Your task to perform on an android device: delete the emails in spam in the gmail app Image 0: 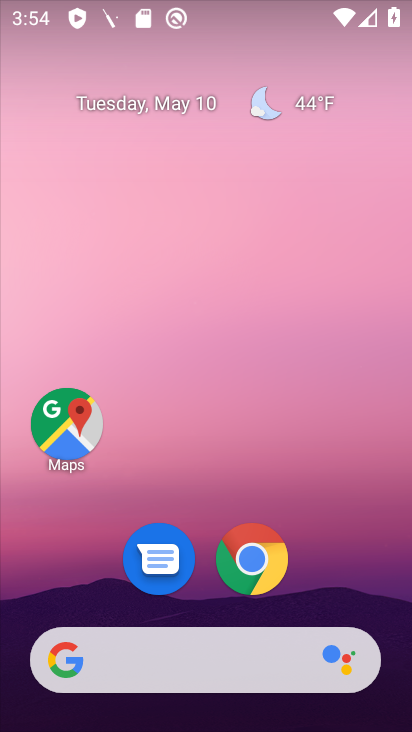
Step 0: drag from (71, 632) to (250, 146)
Your task to perform on an android device: delete the emails in spam in the gmail app Image 1: 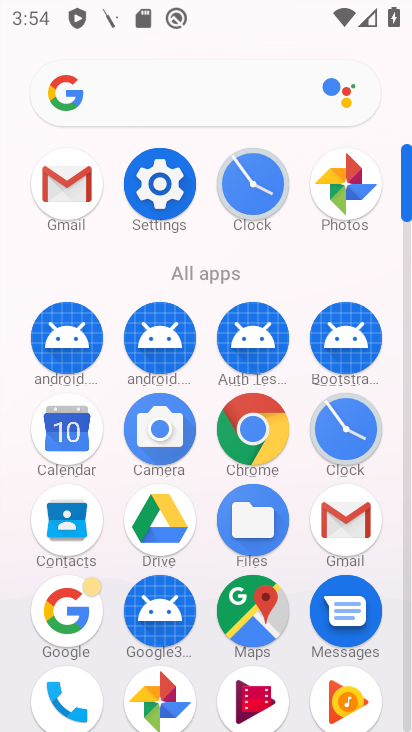
Step 1: click (349, 514)
Your task to perform on an android device: delete the emails in spam in the gmail app Image 2: 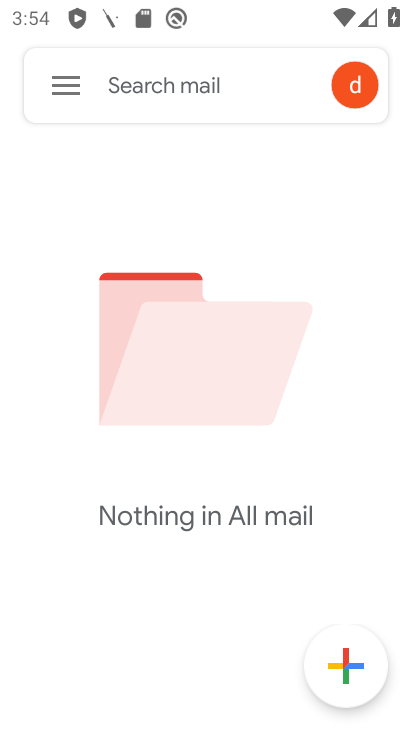
Step 2: click (67, 104)
Your task to perform on an android device: delete the emails in spam in the gmail app Image 3: 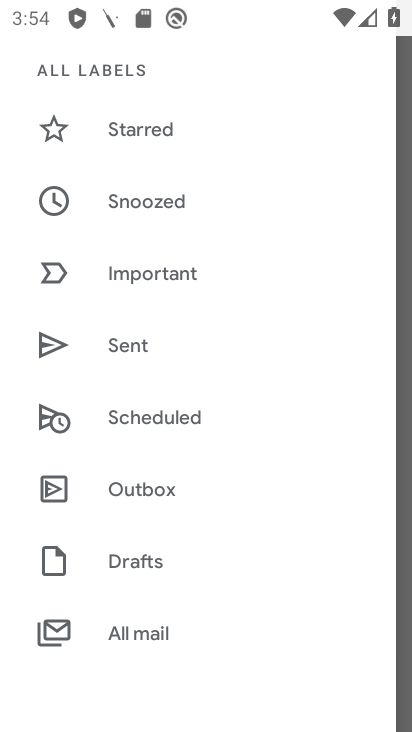
Step 3: drag from (167, 554) to (242, 326)
Your task to perform on an android device: delete the emails in spam in the gmail app Image 4: 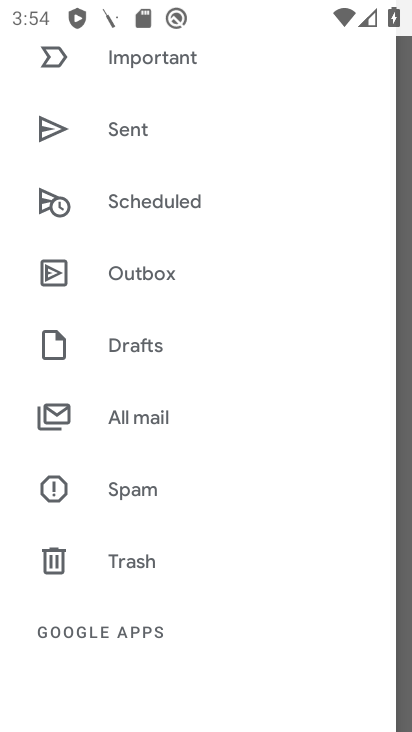
Step 4: click (157, 487)
Your task to perform on an android device: delete the emails in spam in the gmail app Image 5: 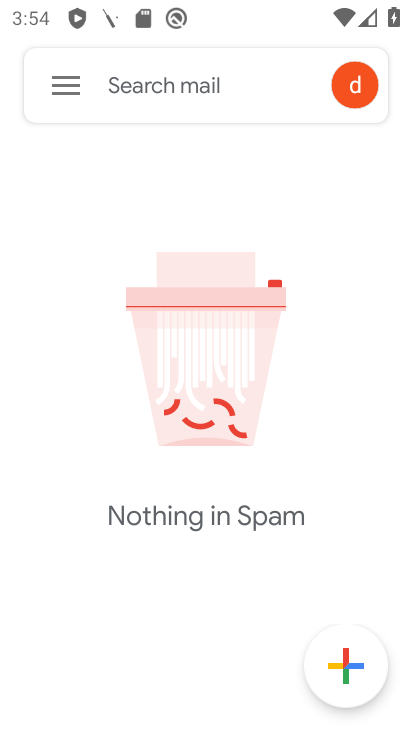
Step 5: task complete